Your task to perform on an android device: Go to eBay Image 0: 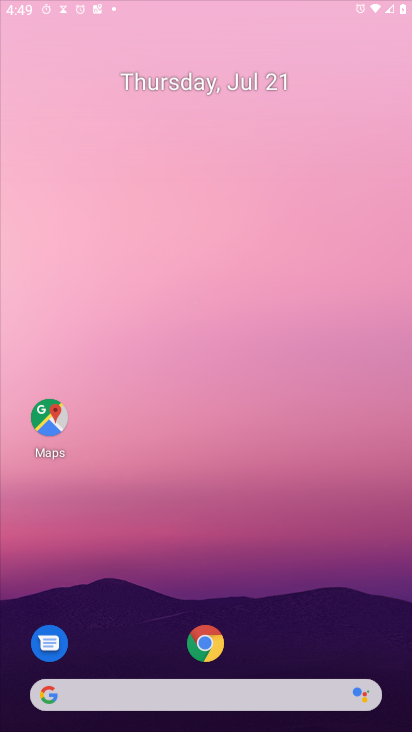
Step 0: press home button
Your task to perform on an android device: Go to eBay Image 1: 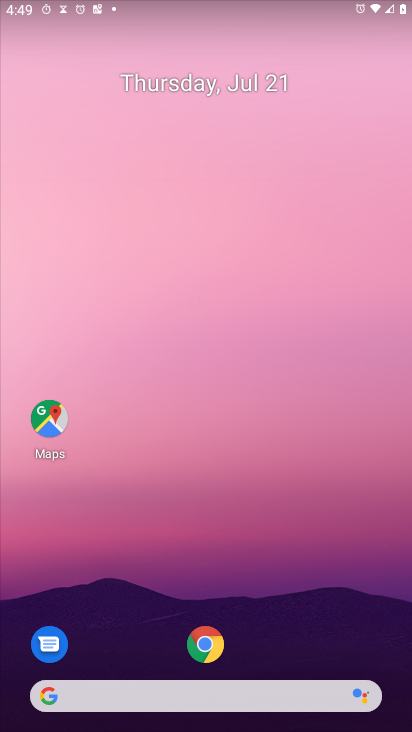
Step 1: click (46, 692)
Your task to perform on an android device: Go to eBay Image 2: 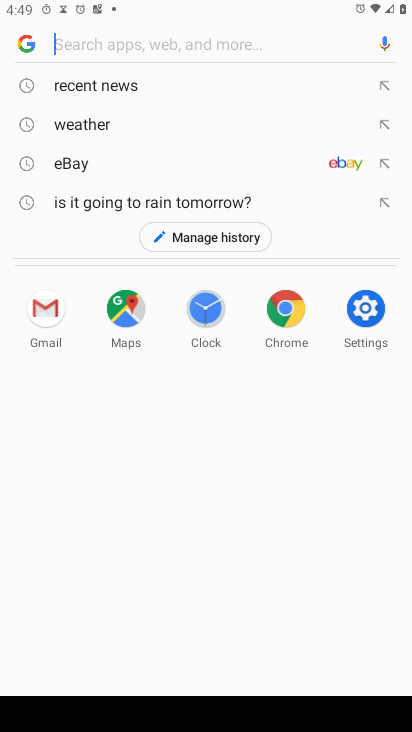
Step 2: click (73, 161)
Your task to perform on an android device: Go to eBay Image 3: 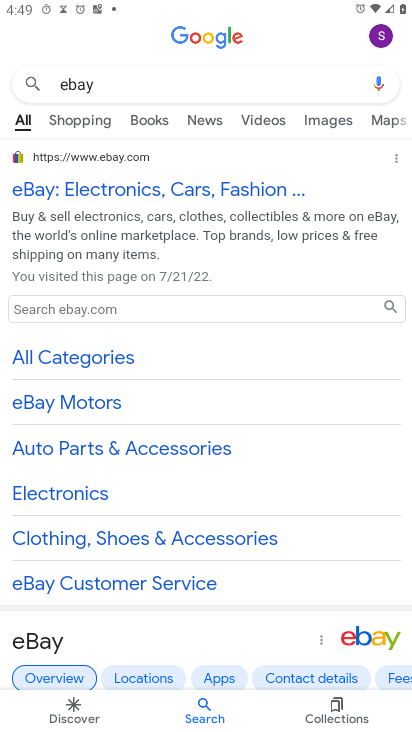
Step 3: click (140, 185)
Your task to perform on an android device: Go to eBay Image 4: 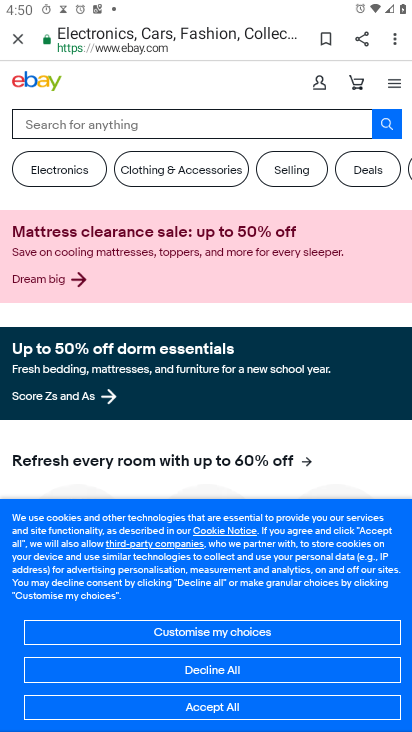
Step 4: task complete